Your task to perform on an android device: add a contact in the contacts app Image 0: 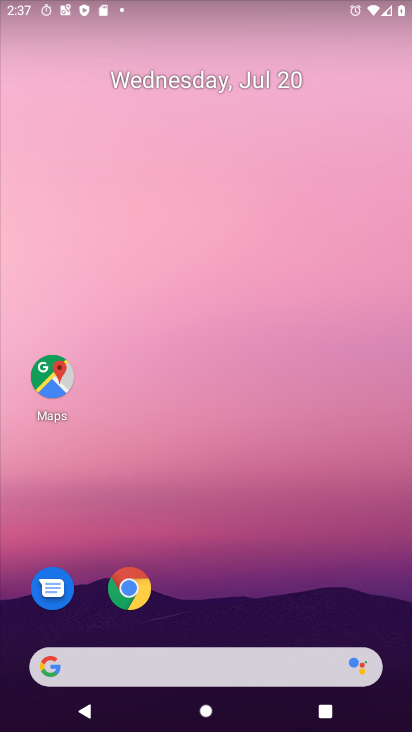
Step 0: drag from (319, 452) to (397, 0)
Your task to perform on an android device: add a contact in the contacts app Image 1: 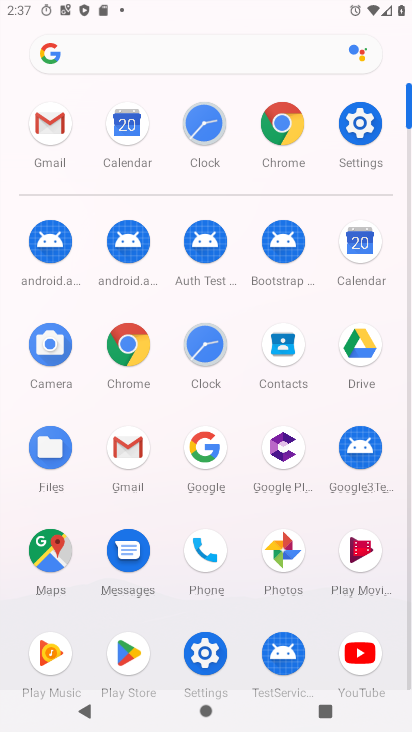
Step 1: click (188, 549)
Your task to perform on an android device: add a contact in the contacts app Image 2: 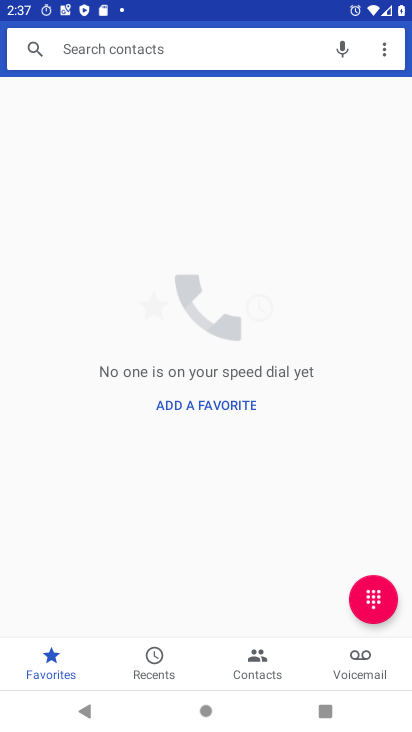
Step 2: click (256, 682)
Your task to perform on an android device: add a contact in the contacts app Image 3: 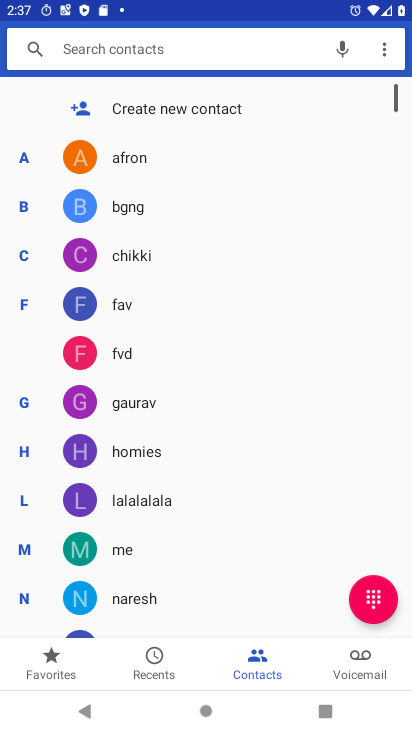
Step 3: task complete